Your task to perform on an android device: check google app version Image 0: 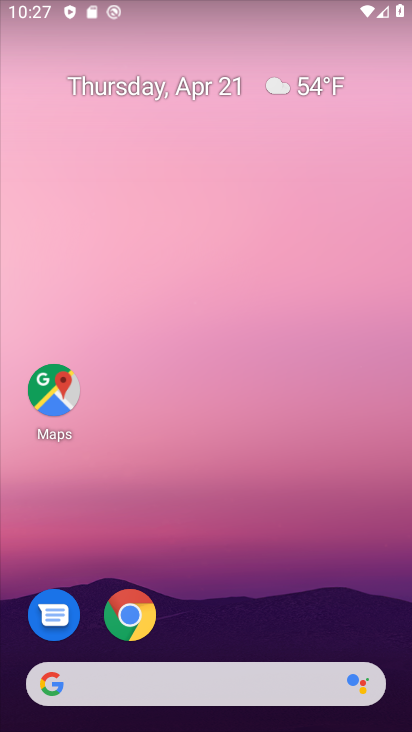
Step 0: drag from (237, 628) to (226, 123)
Your task to perform on an android device: check google app version Image 1: 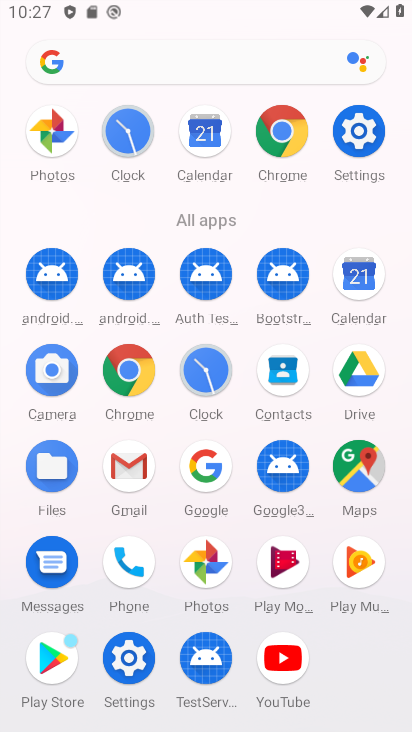
Step 1: click (198, 473)
Your task to perform on an android device: check google app version Image 2: 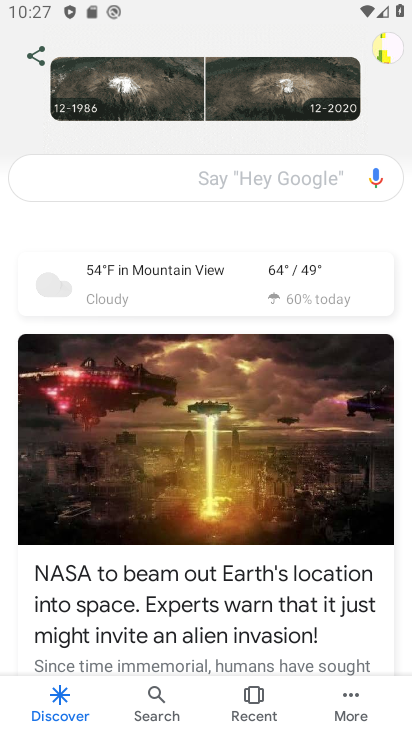
Step 2: click (345, 703)
Your task to perform on an android device: check google app version Image 3: 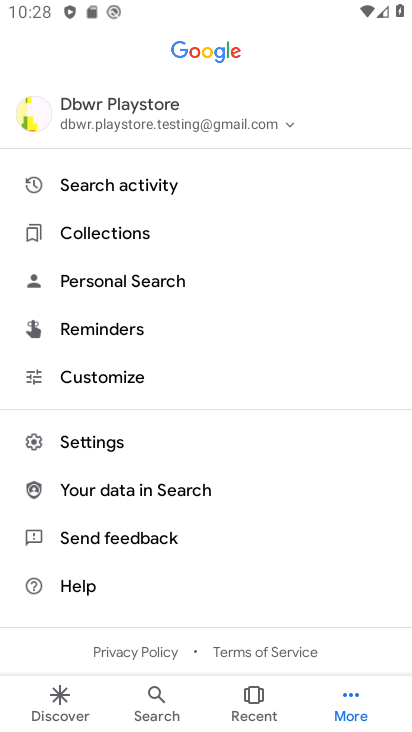
Step 3: click (164, 429)
Your task to perform on an android device: check google app version Image 4: 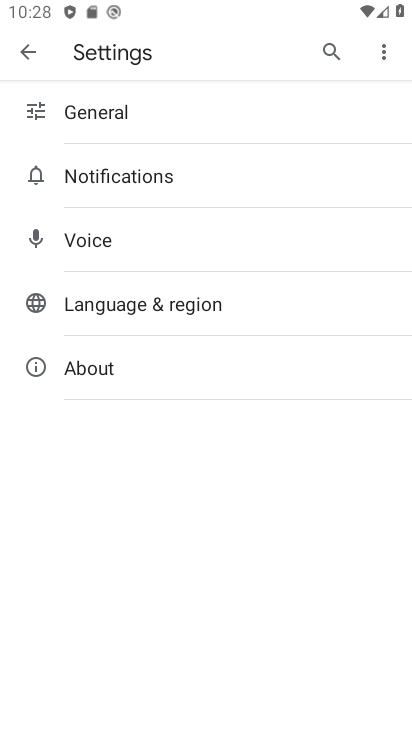
Step 4: click (118, 383)
Your task to perform on an android device: check google app version Image 5: 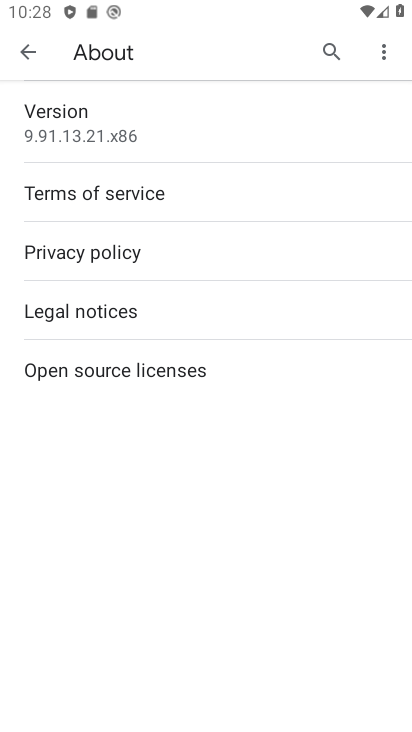
Step 5: click (129, 134)
Your task to perform on an android device: check google app version Image 6: 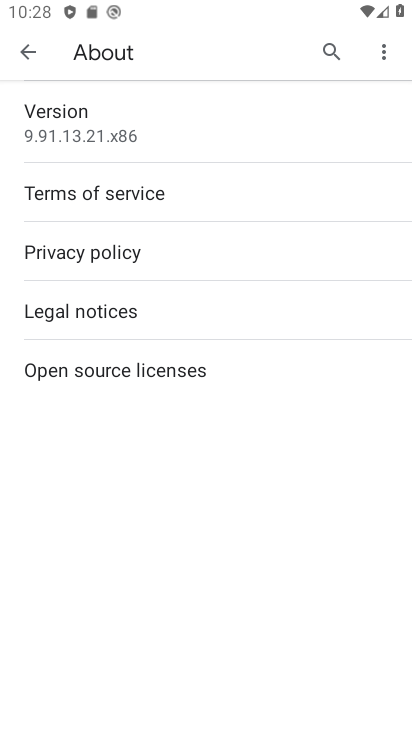
Step 6: task complete